Your task to perform on an android device: open app "DoorDash - Dasher" (install if not already installed) Image 0: 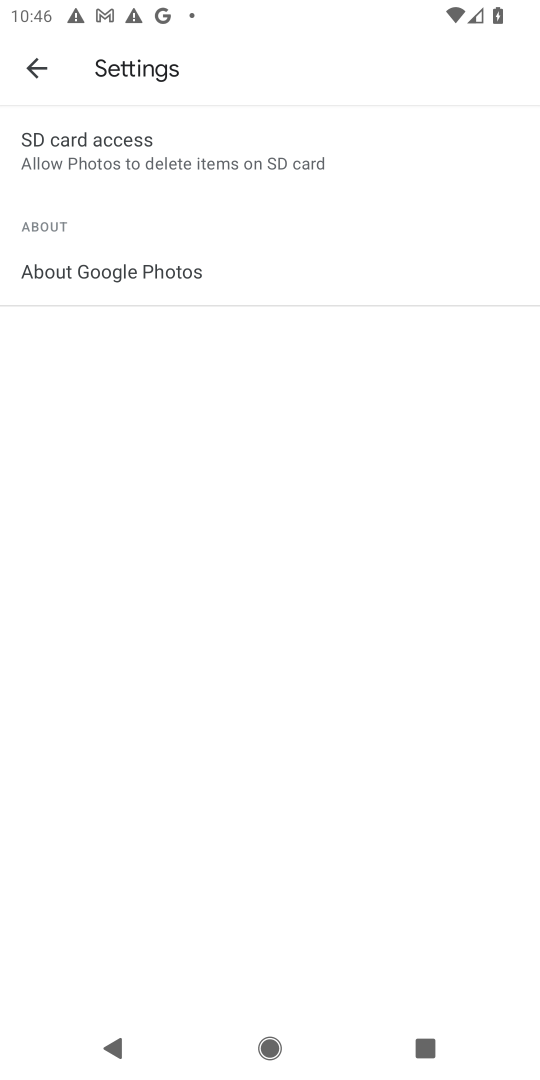
Step 0: press home button
Your task to perform on an android device: open app "DoorDash - Dasher" (install if not already installed) Image 1: 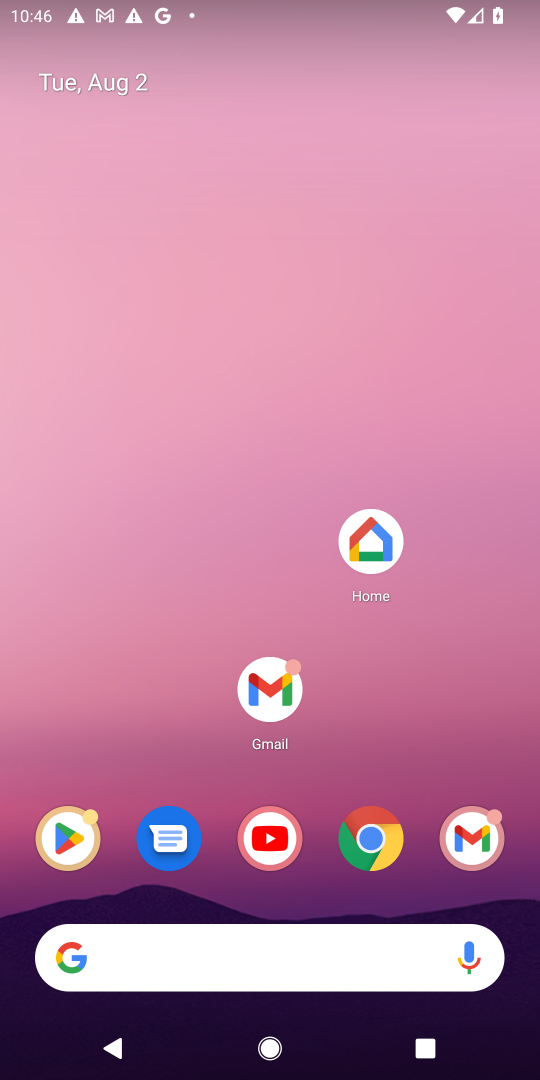
Step 1: drag from (425, 688) to (471, 182)
Your task to perform on an android device: open app "DoorDash - Dasher" (install if not already installed) Image 2: 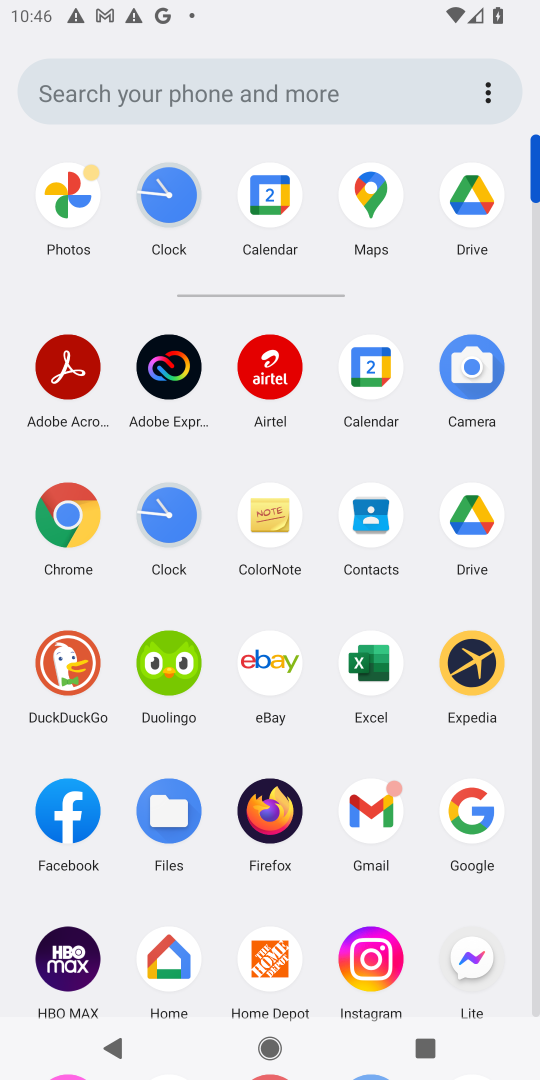
Step 2: drag from (428, 855) to (411, 636)
Your task to perform on an android device: open app "DoorDash - Dasher" (install if not already installed) Image 3: 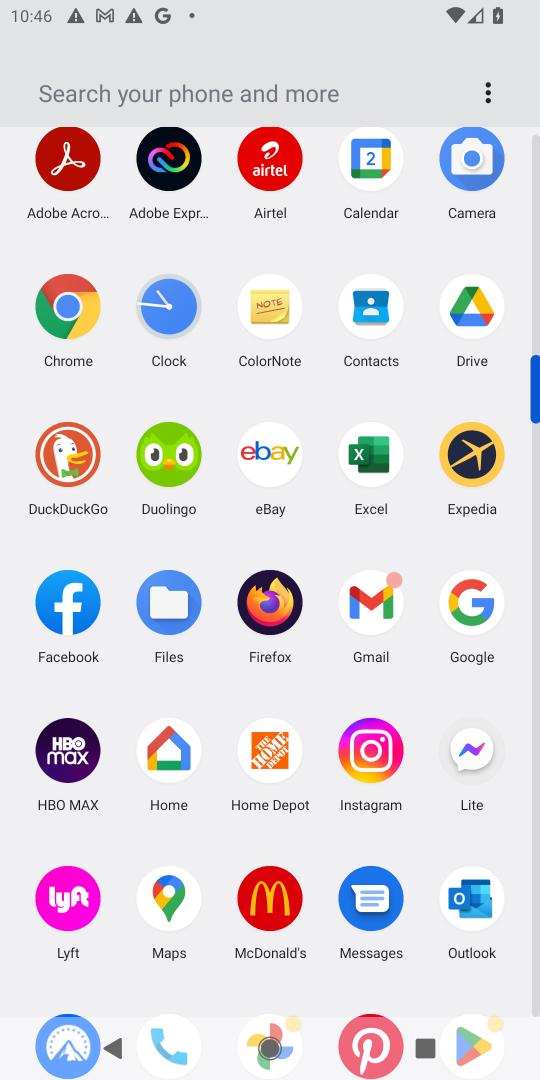
Step 3: drag from (405, 962) to (427, 699)
Your task to perform on an android device: open app "DoorDash - Dasher" (install if not already installed) Image 4: 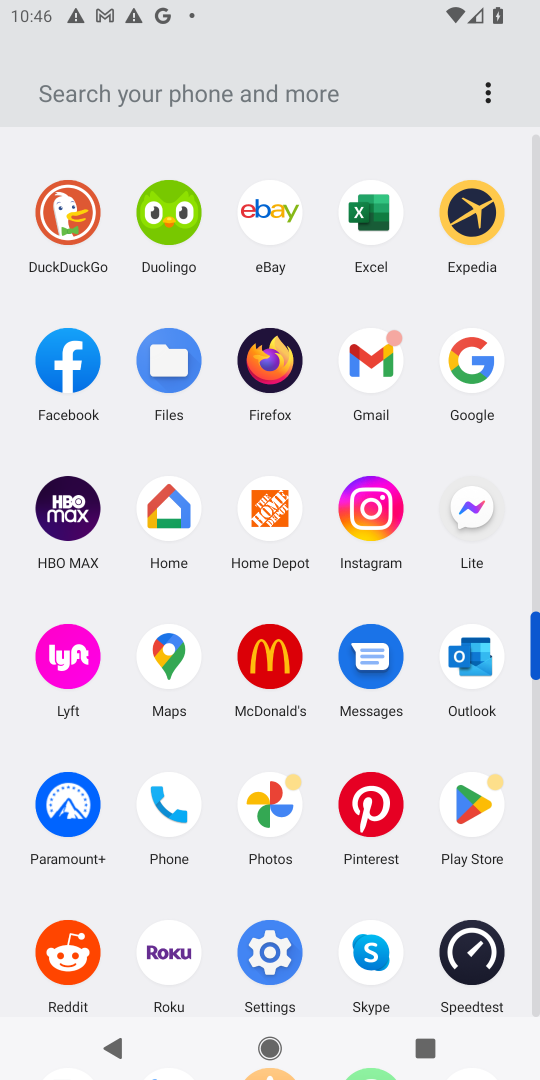
Step 4: click (482, 827)
Your task to perform on an android device: open app "DoorDash - Dasher" (install if not already installed) Image 5: 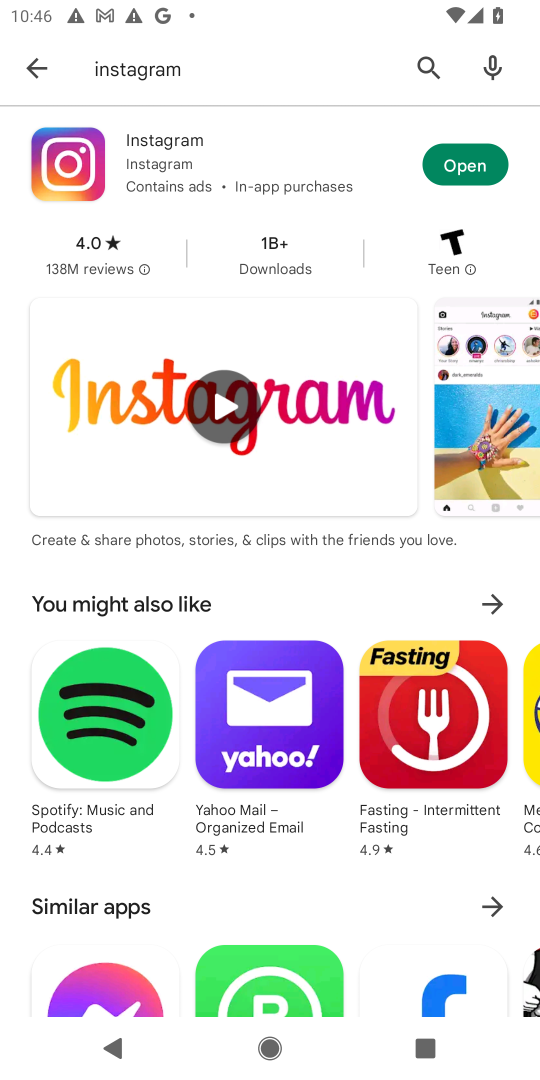
Step 5: click (420, 68)
Your task to perform on an android device: open app "DoorDash - Dasher" (install if not already installed) Image 6: 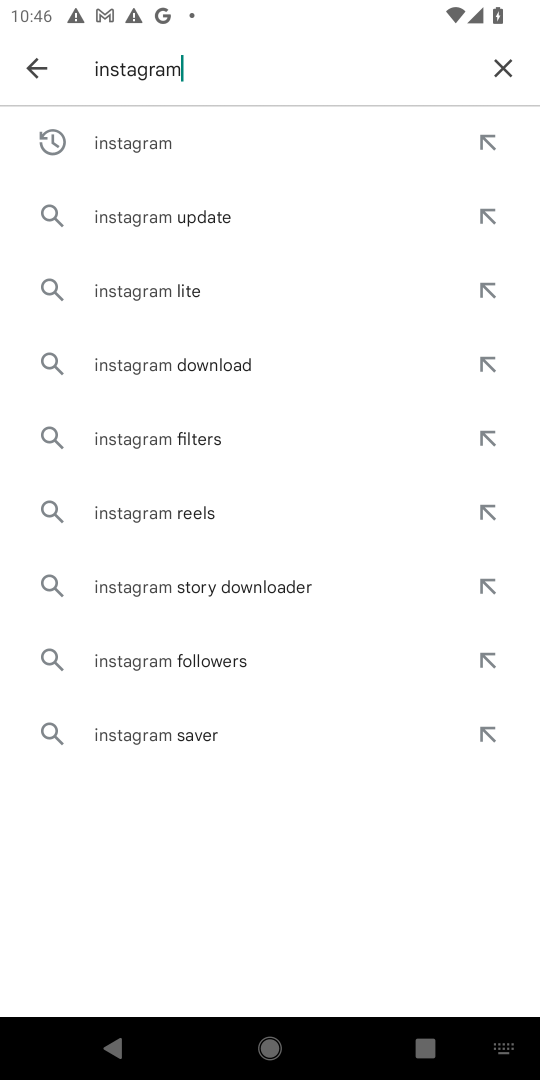
Step 6: click (504, 69)
Your task to perform on an android device: open app "DoorDash - Dasher" (install if not already installed) Image 7: 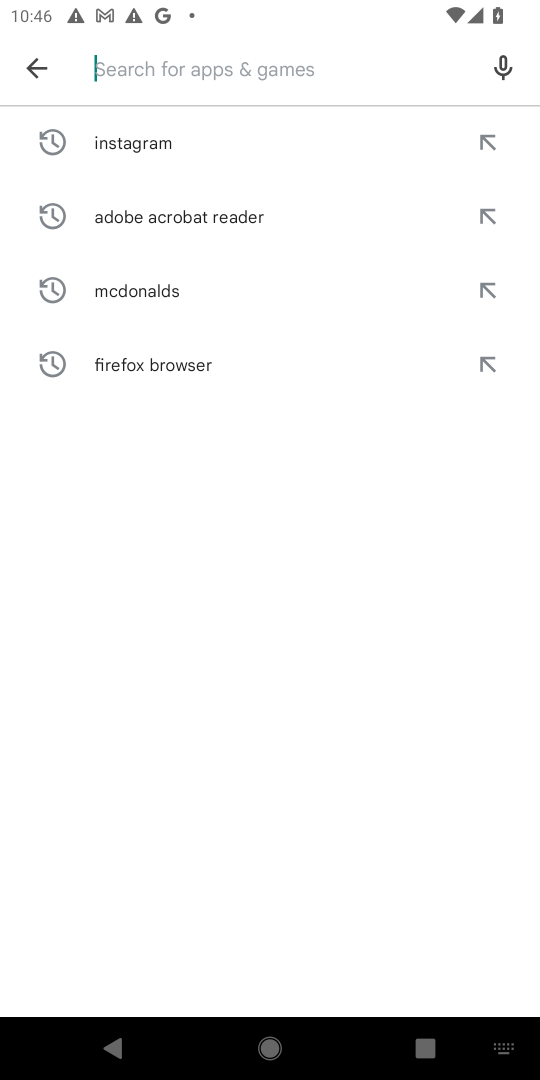
Step 7: click (347, 74)
Your task to perform on an android device: open app "DoorDash - Dasher" (install if not already installed) Image 8: 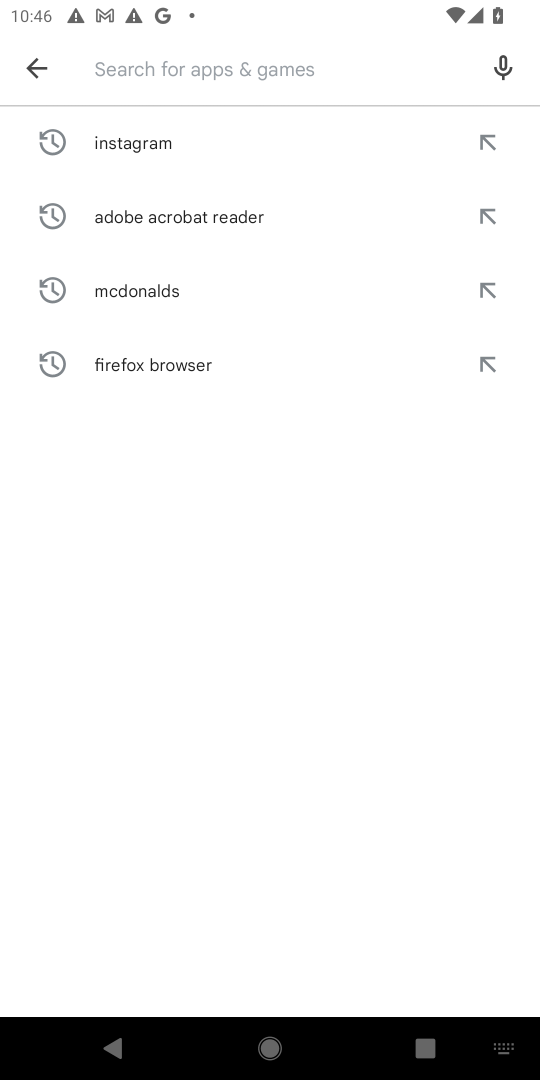
Step 8: type "door dash dasher"
Your task to perform on an android device: open app "DoorDash - Dasher" (install if not already installed) Image 9: 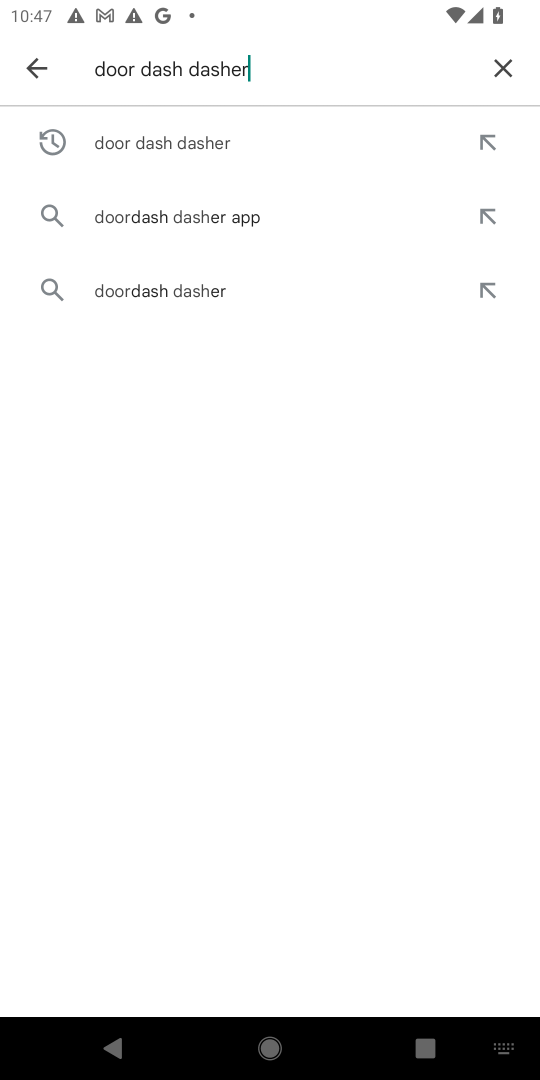
Step 9: click (252, 152)
Your task to perform on an android device: open app "DoorDash - Dasher" (install if not already installed) Image 10: 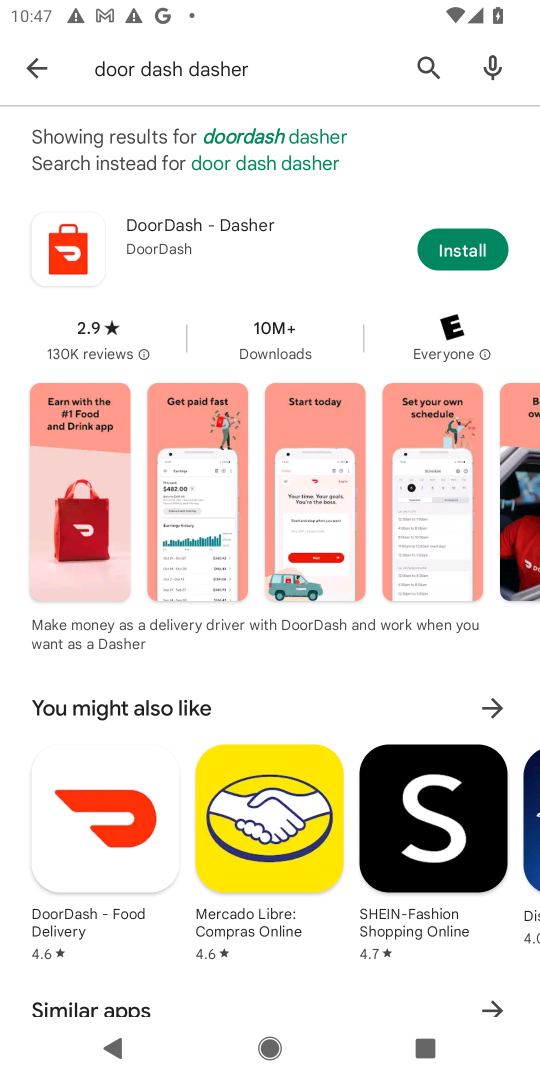
Step 10: click (474, 241)
Your task to perform on an android device: open app "DoorDash - Dasher" (install if not already installed) Image 11: 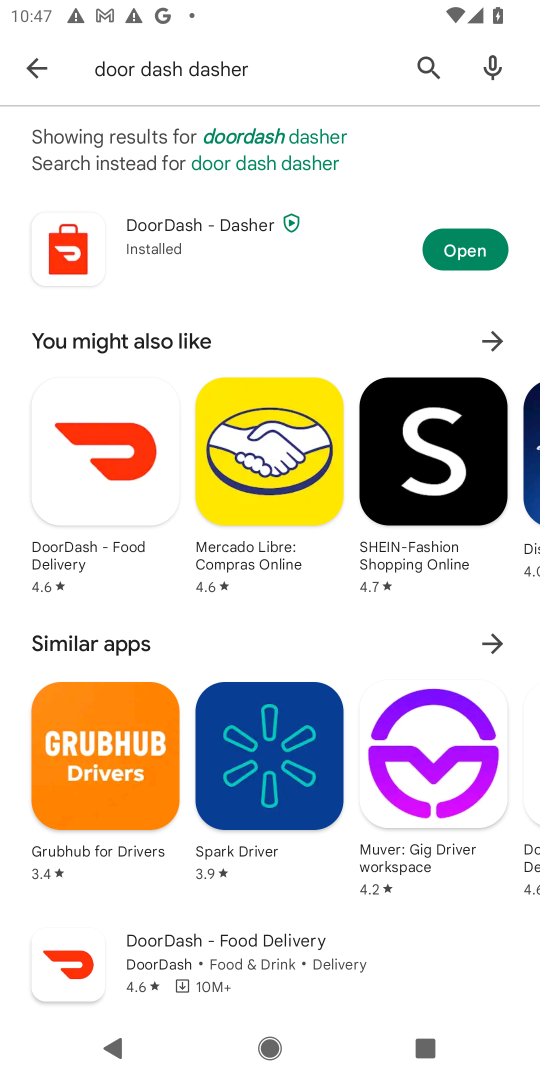
Step 11: click (473, 248)
Your task to perform on an android device: open app "DoorDash - Dasher" (install if not already installed) Image 12: 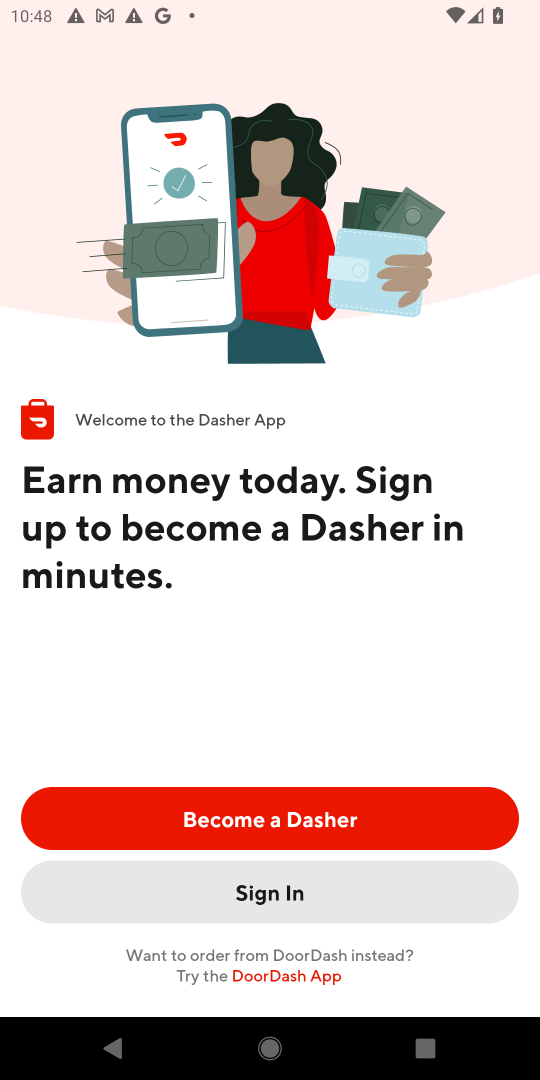
Step 12: task complete